Your task to perform on an android device: open app "Paramount+ | Peak Streaming" Image 0: 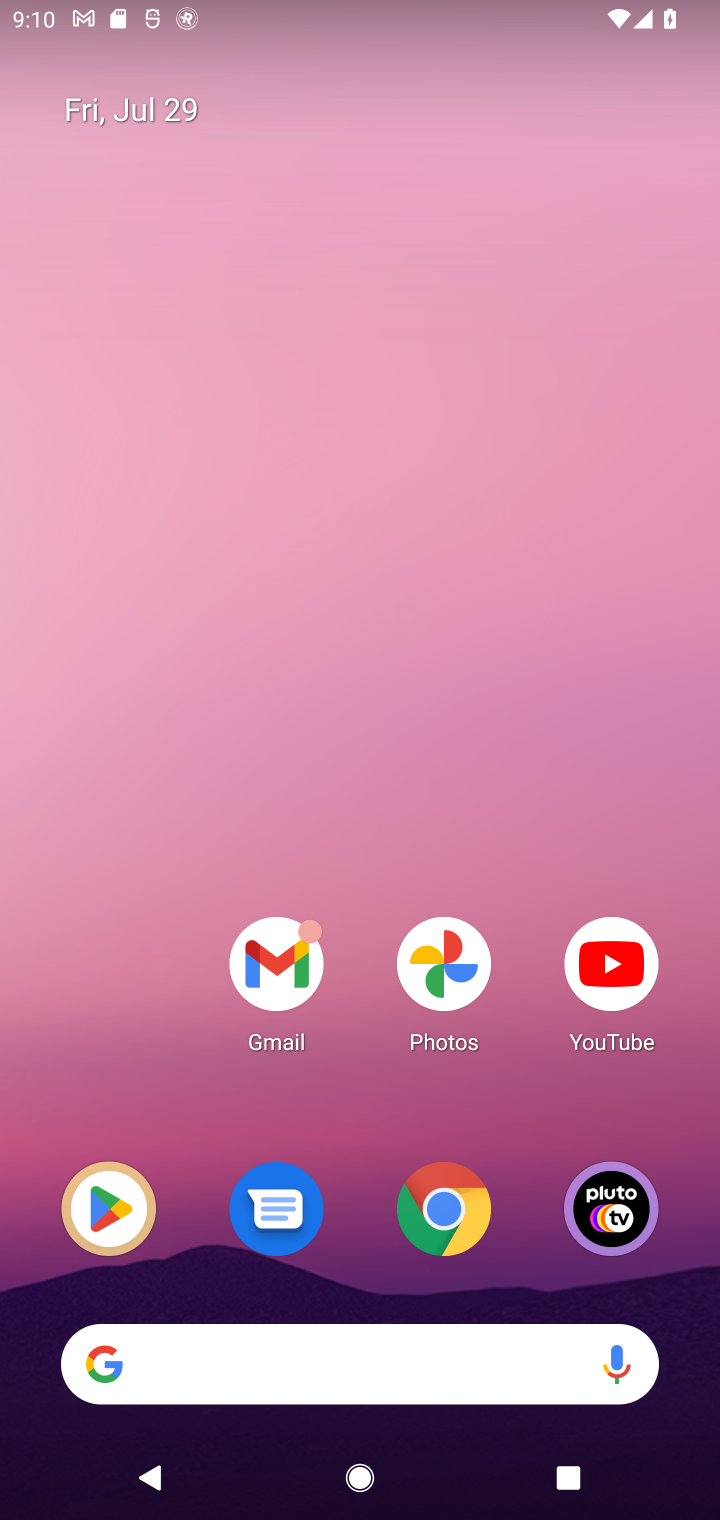
Step 0: drag from (341, 1345) to (420, 295)
Your task to perform on an android device: open app "Paramount+ | Peak Streaming" Image 1: 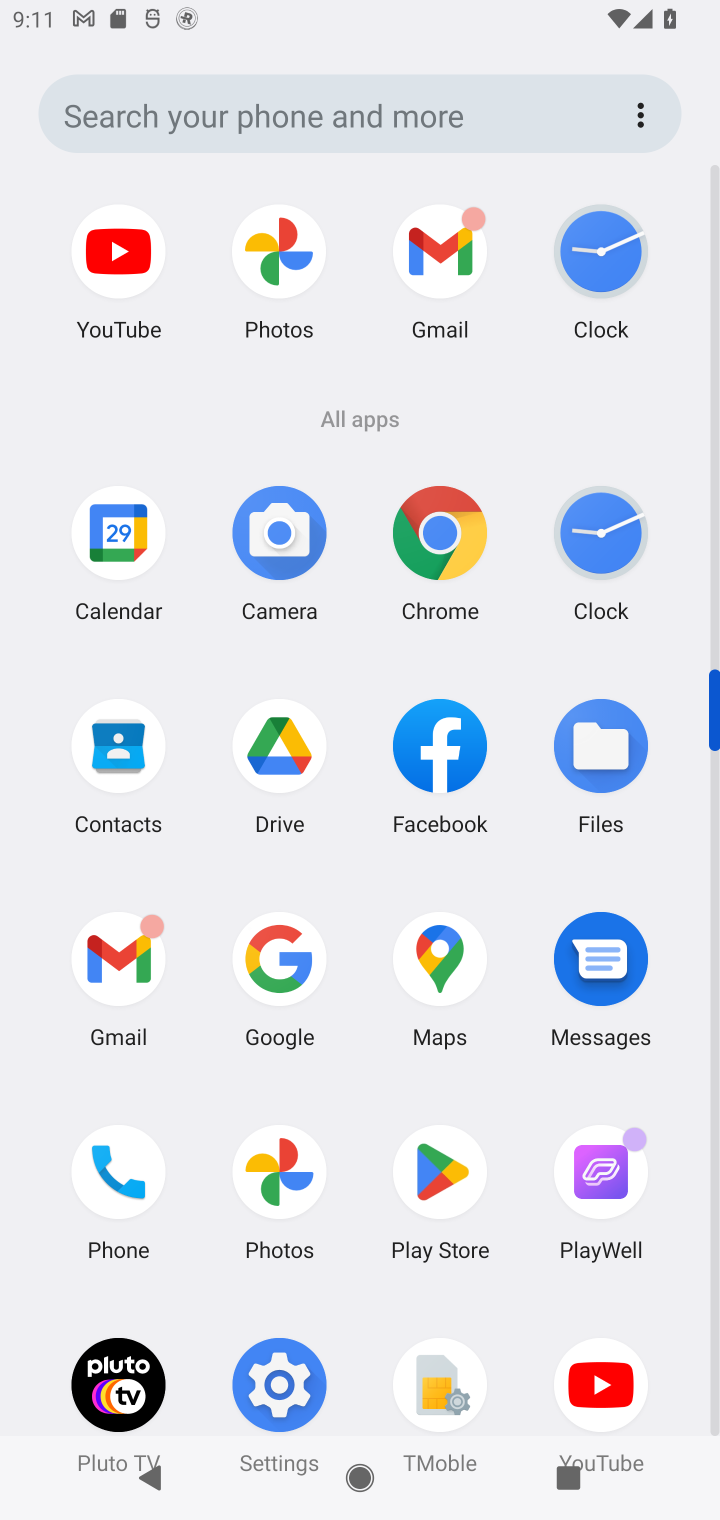
Step 1: click (440, 1193)
Your task to perform on an android device: open app "Paramount+ | Peak Streaming" Image 2: 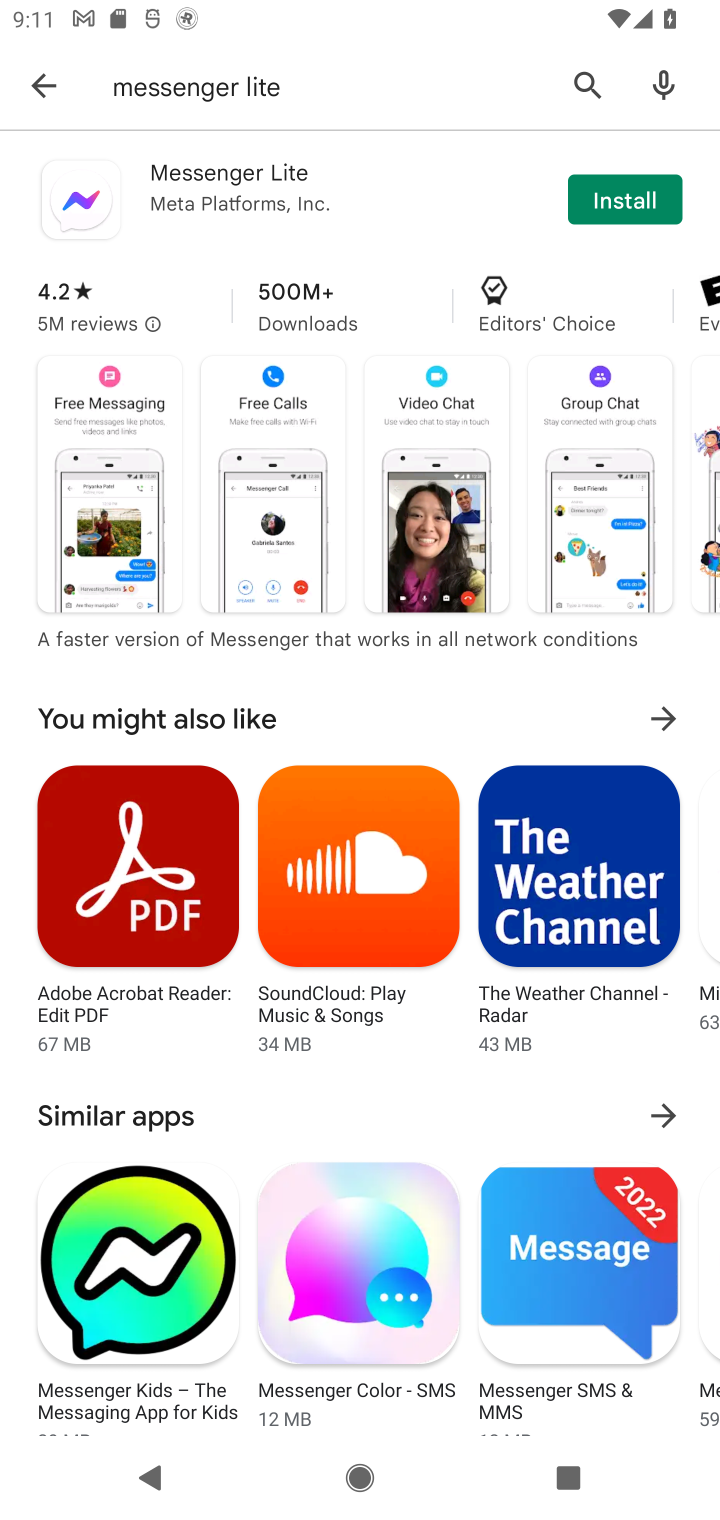
Step 2: click (610, 89)
Your task to perform on an android device: open app "Paramount+ | Peak Streaming" Image 3: 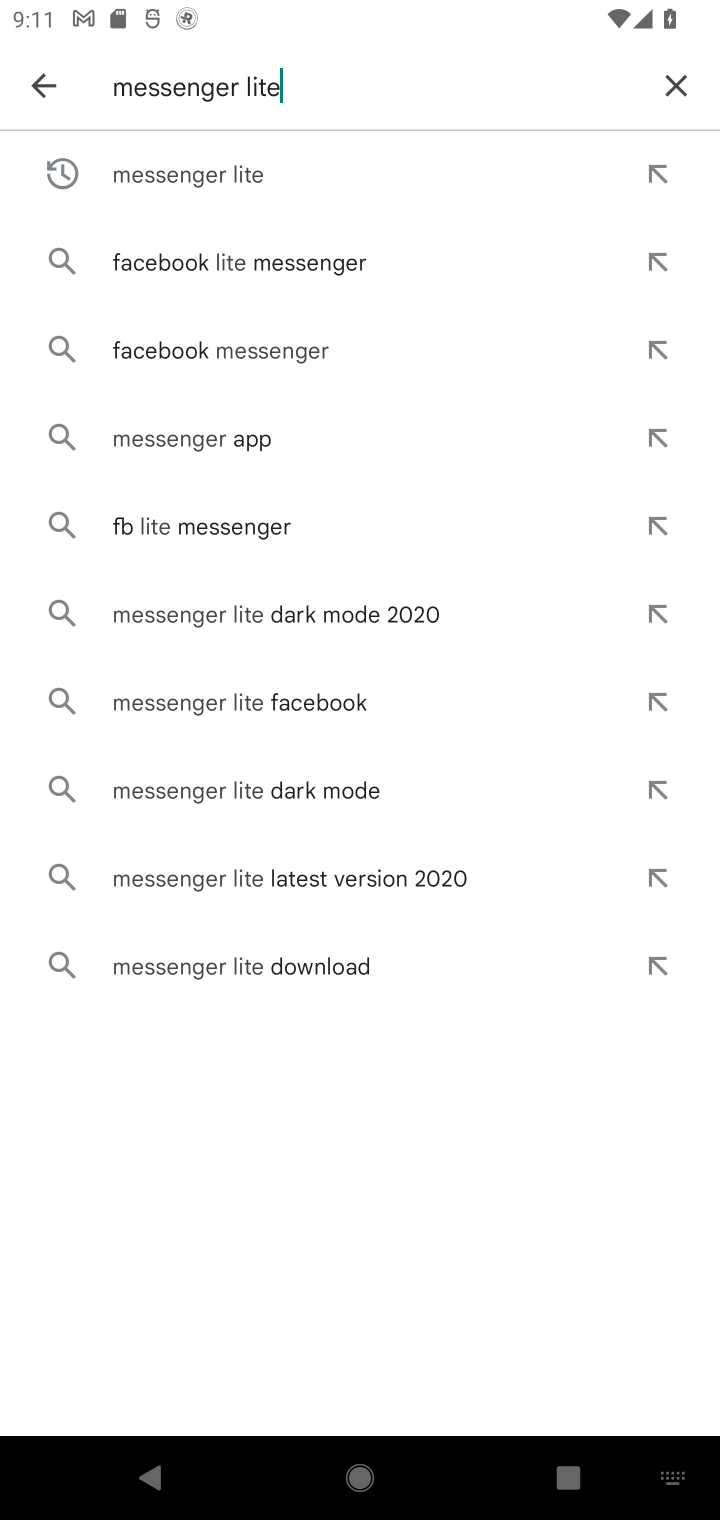
Step 3: click (687, 86)
Your task to perform on an android device: open app "Paramount+ | Peak Streaming" Image 4: 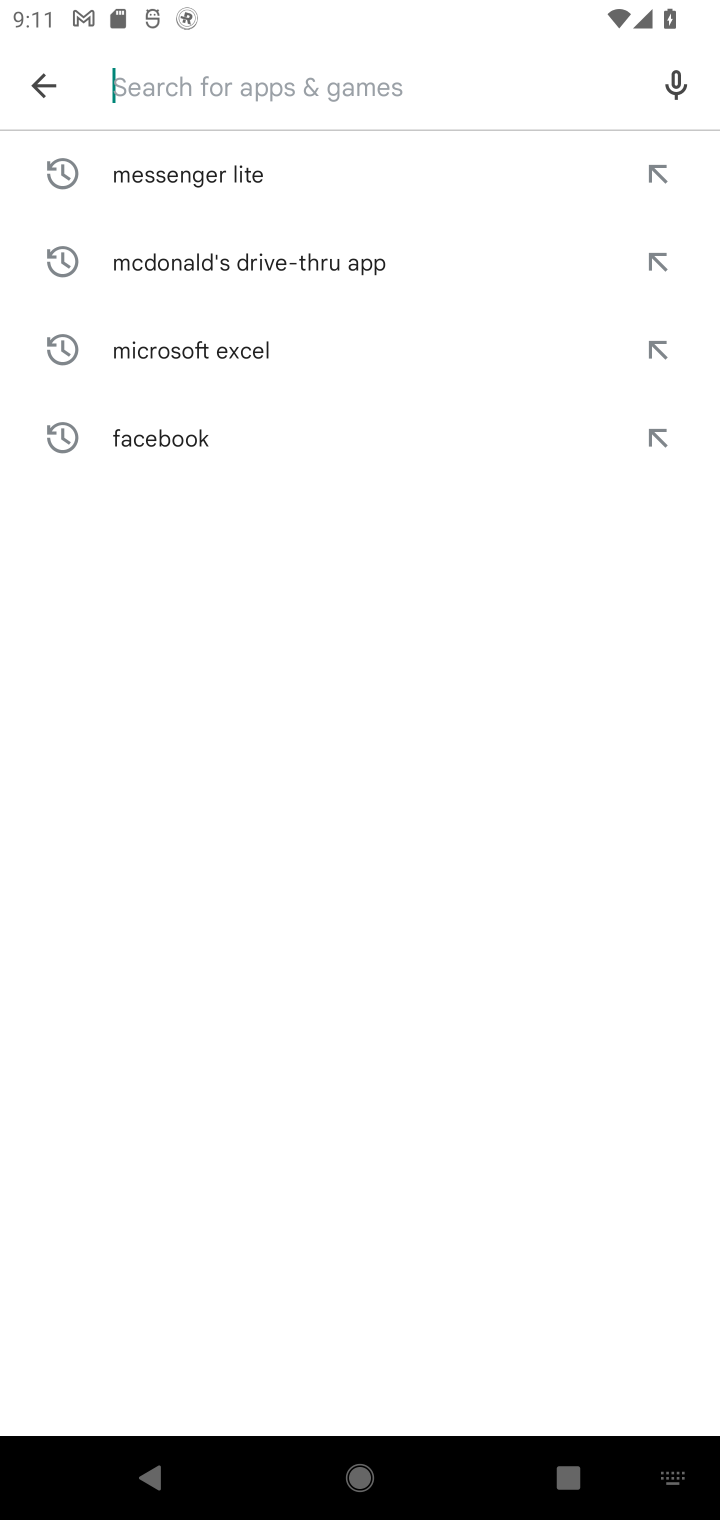
Step 4: click (345, 102)
Your task to perform on an android device: open app "Paramount+ | Peak Streaming" Image 5: 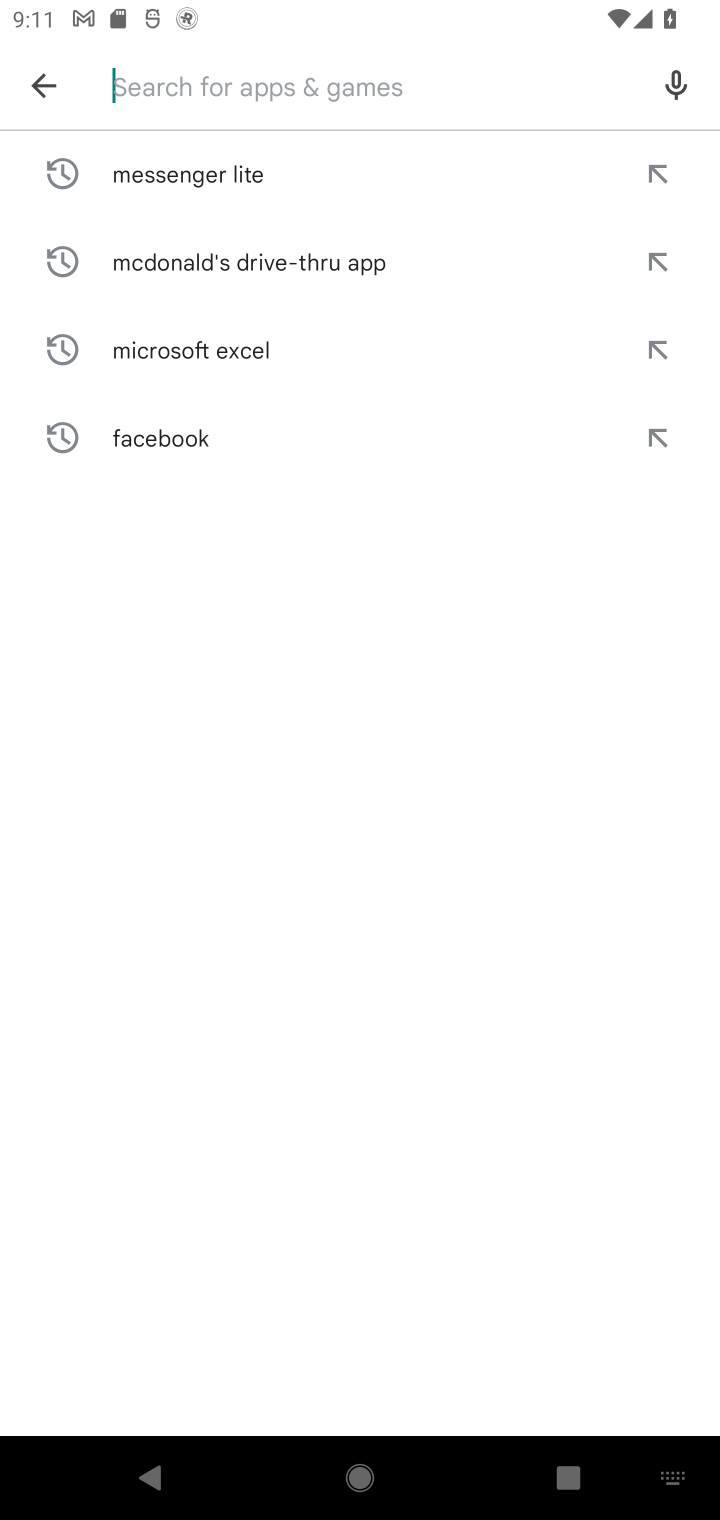
Step 5: type "Paramount+ | Peak Streaming"
Your task to perform on an android device: open app "Paramount+ | Peak Streaming" Image 6: 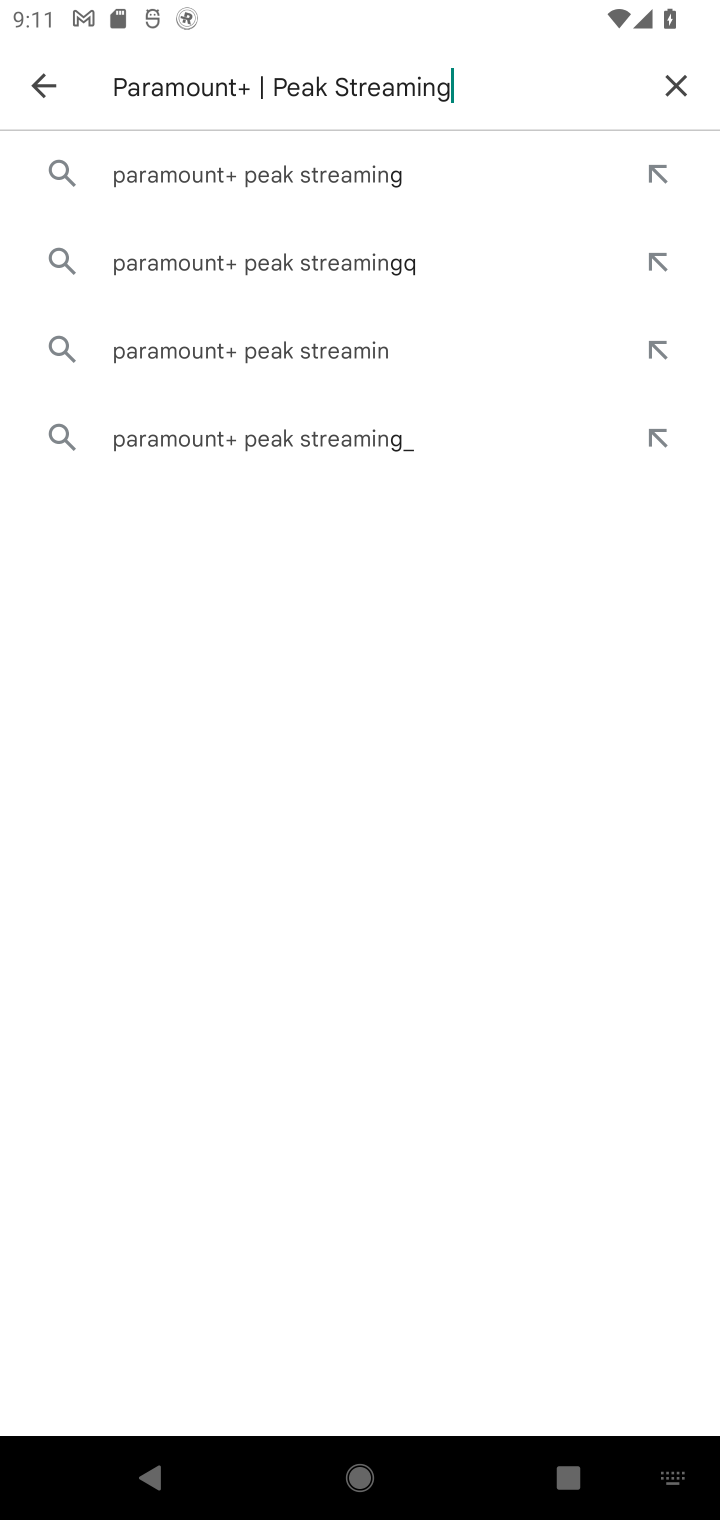
Step 6: type ""
Your task to perform on an android device: open app "Paramount+ | Peak Streaming" Image 7: 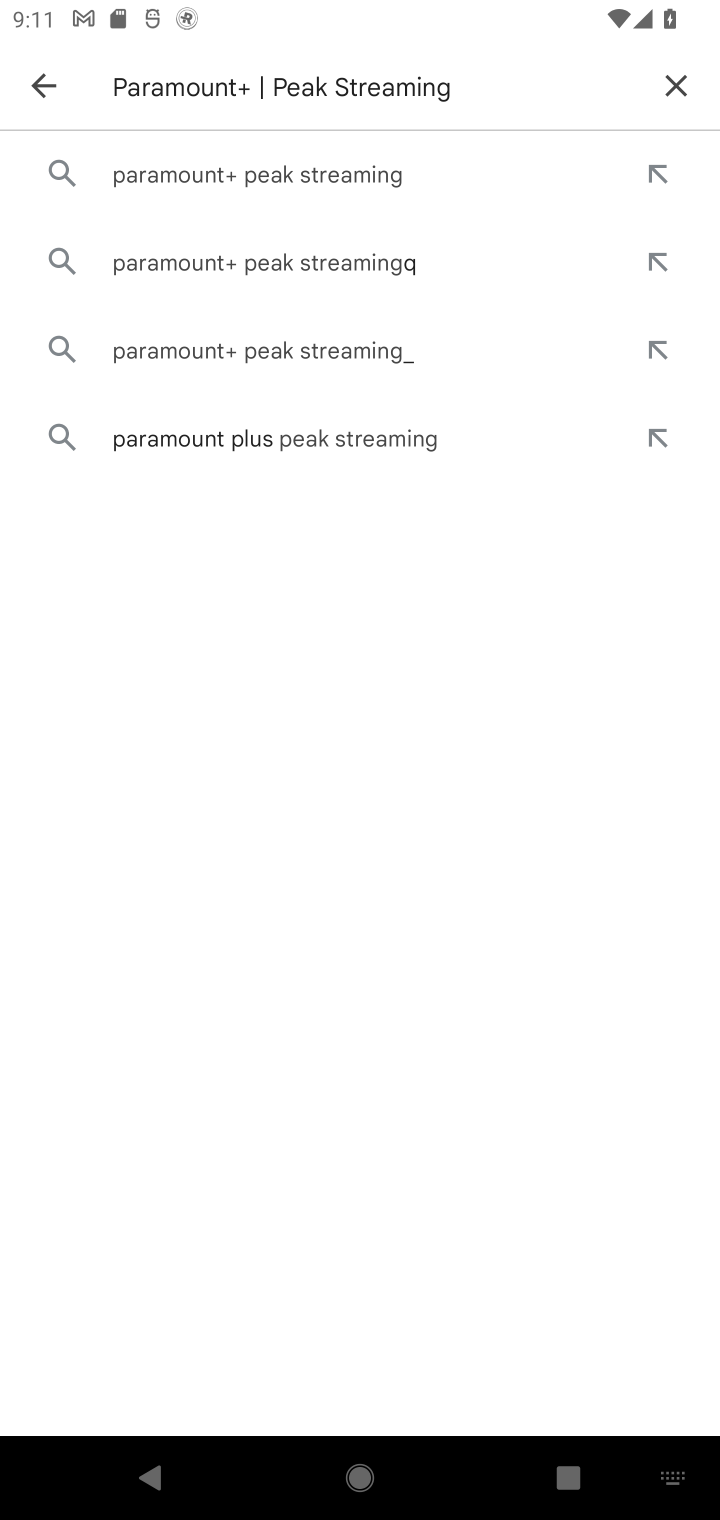
Step 7: click (274, 186)
Your task to perform on an android device: open app "Paramount+ | Peak Streaming" Image 8: 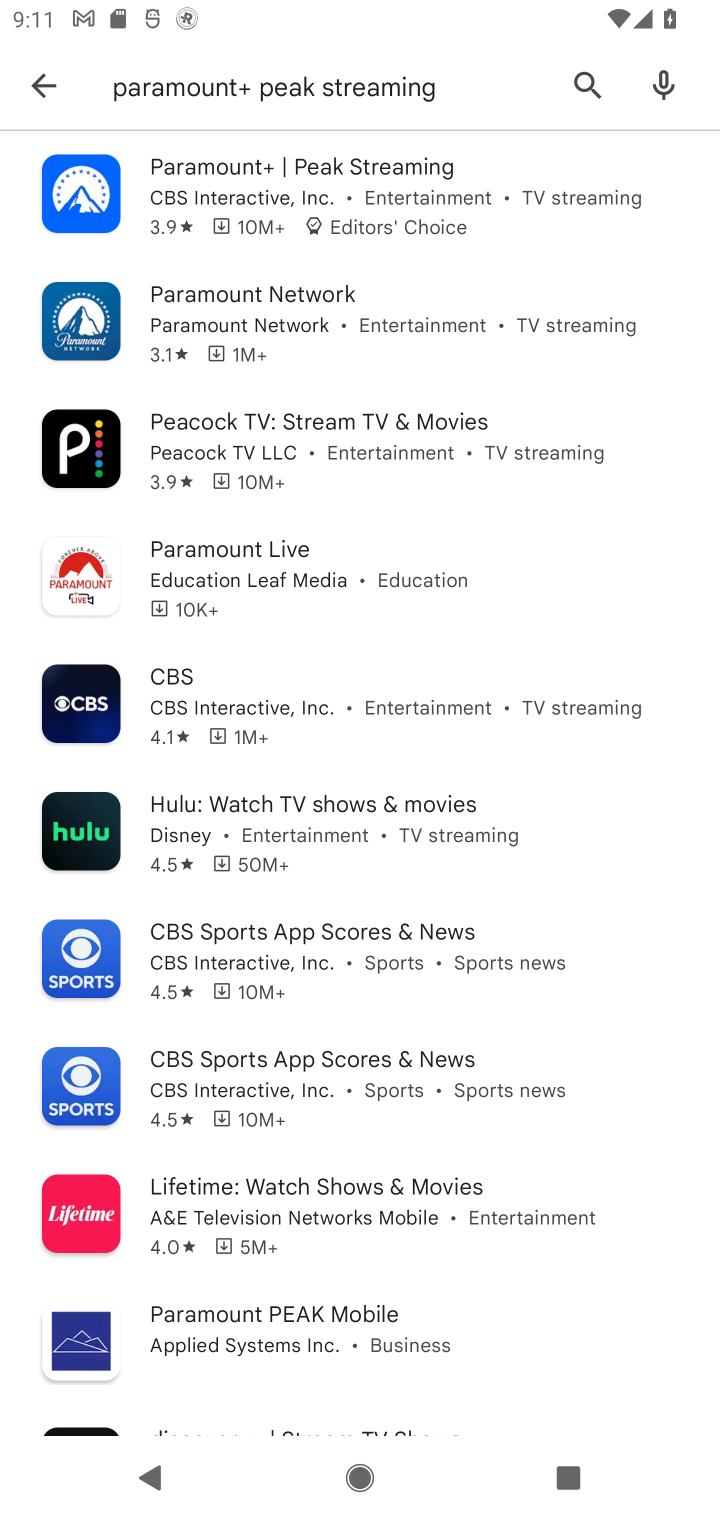
Step 8: click (274, 186)
Your task to perform on an android device: open app "Paramount+ | Peak Streaming" Image 9: 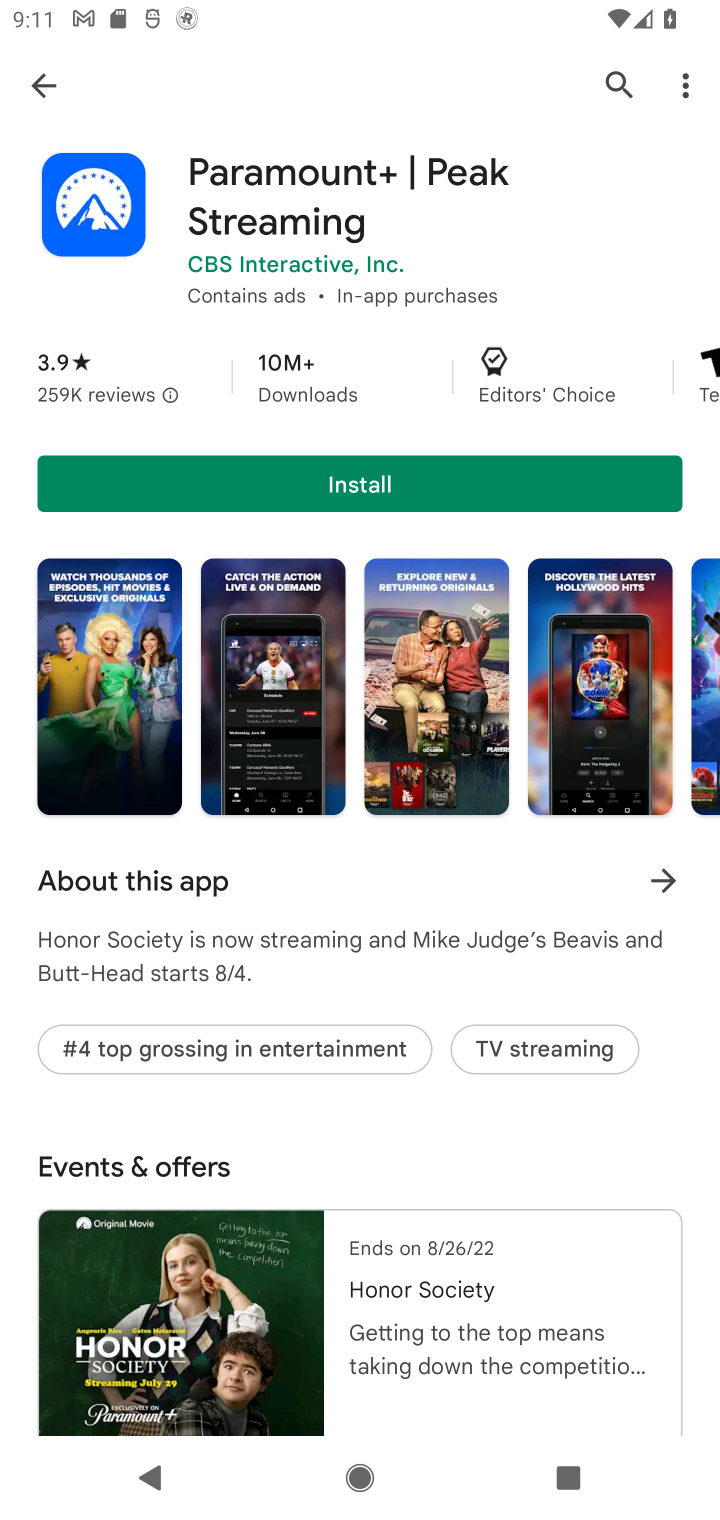
Step 9: task complete